Your task to perform on an android device: open device folders in google photos Image 0: 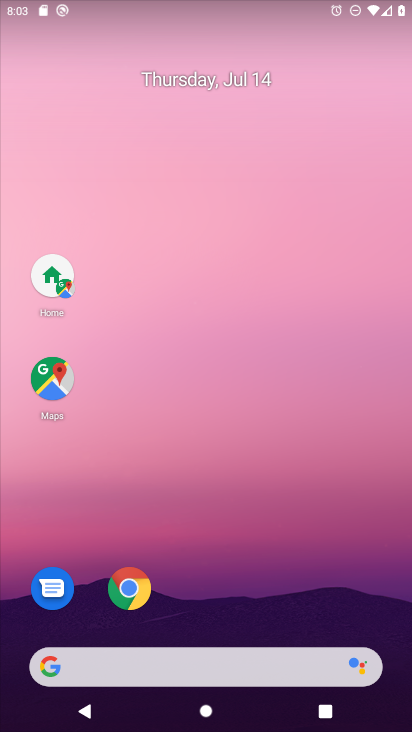
Step 0: drag from (20, 698) to (235, 86)
Your task to perform on an android device: open device folders in google photos Image 1: 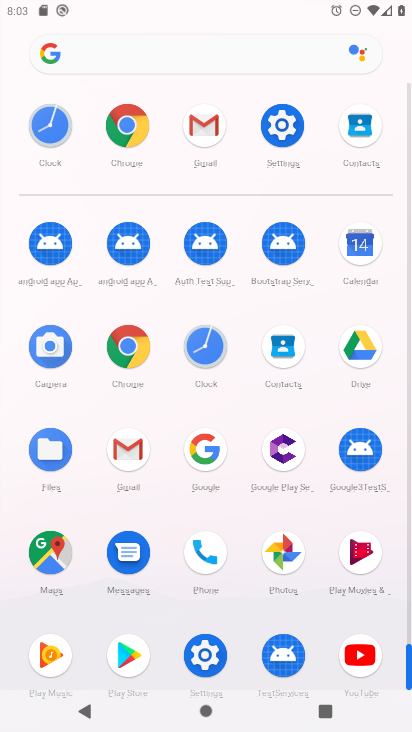
Step 1: click (280, 545)
Your task to perform on an android device: open device folders in google photos Image 2: 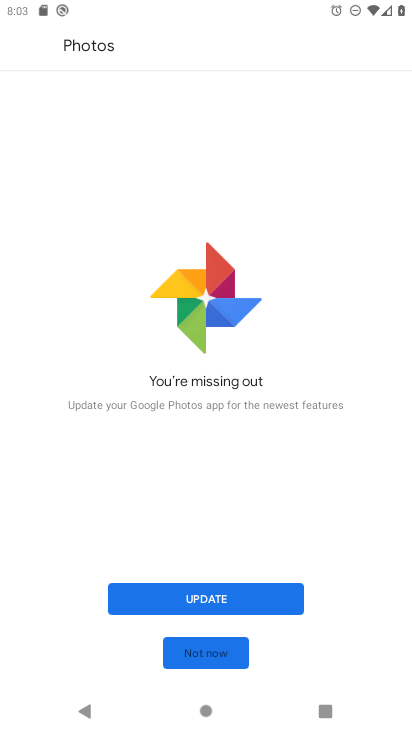
Step 2: click (210, 600)
Your task to perform on an android device: open device folders in google photos Image 3: 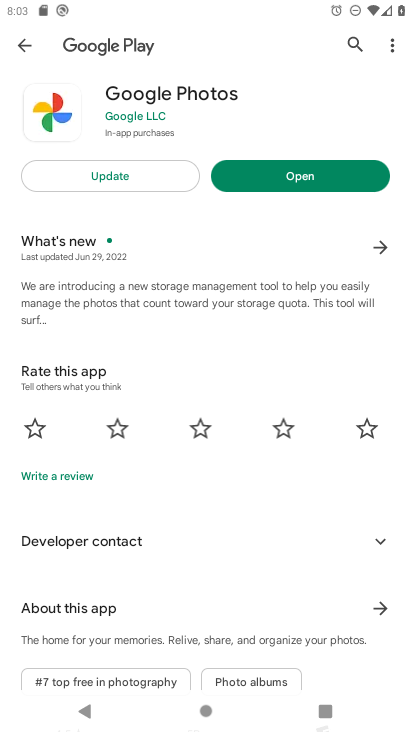
Step 3: click (323, 180)
Your task to perform on an android device: open device folders in google photos Image 4: 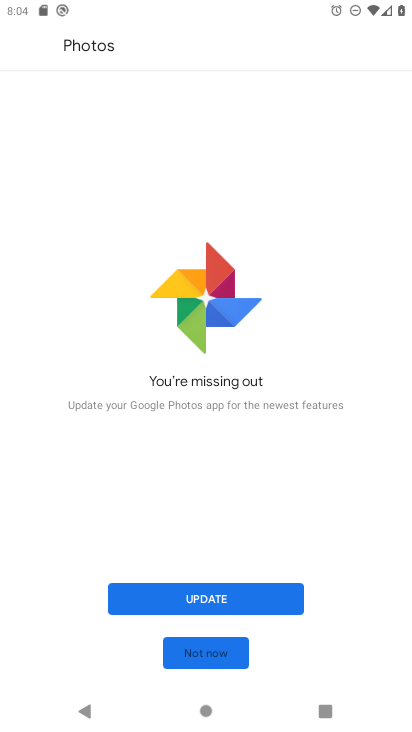
Step 4: click (204, 646)
Your task to perform on an android device: open device folders in google photos Image 5: 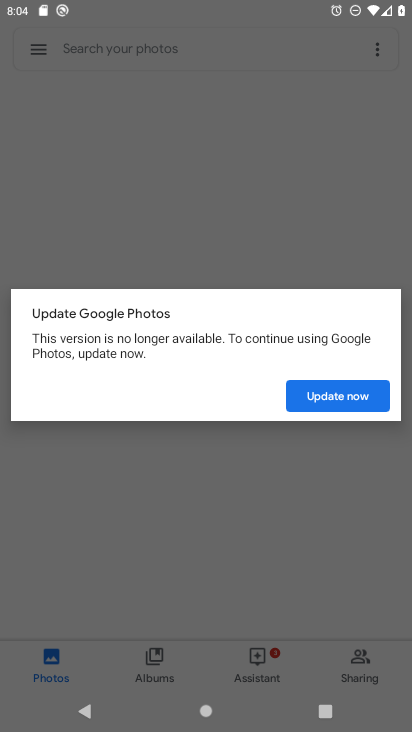
Step 5: click (315, 424)
Your task to perform on an android device: open device folders in google photos Image 6: 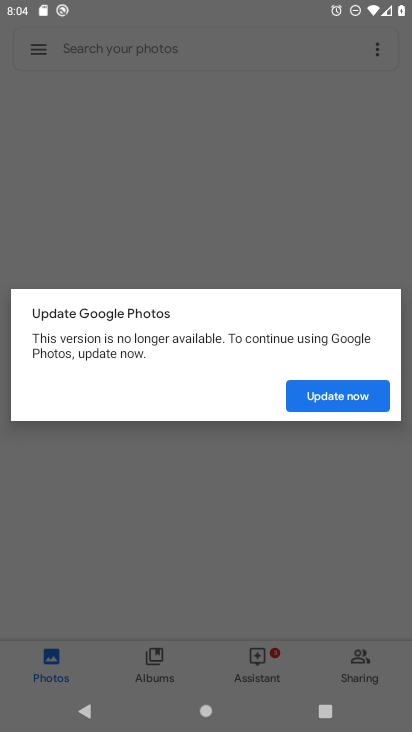
Step 6: click (318, 406)
Your task to perform on an android device: open device folders in google photos Image 7: 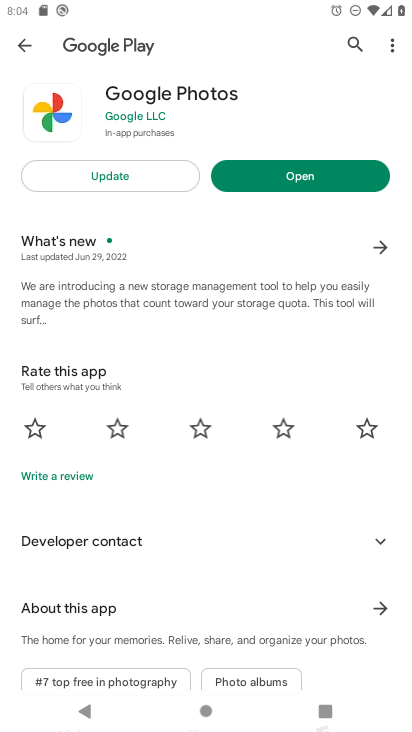
Step 7: click (318, 178)
Your task to perform on an android device: open device folders in google photos Image 8: 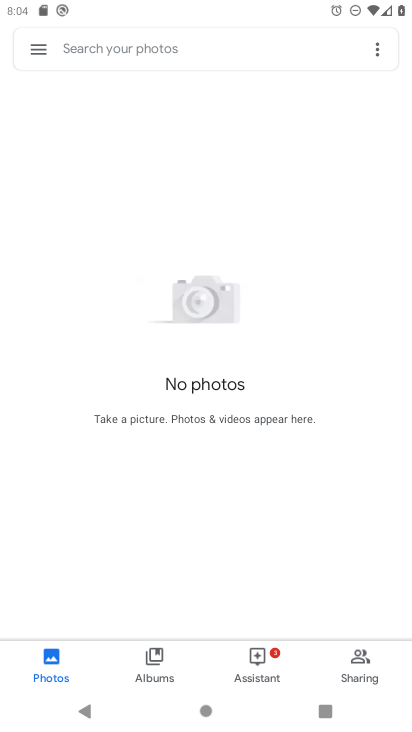
Step 8: click (36, 55)
Your task to perform on an android device: open device folders in google photos Image 9: 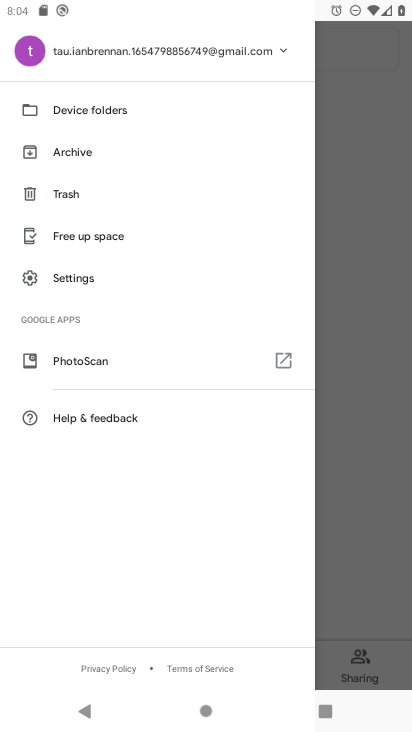
Step 9: click (118, 92)
Your task to perform on an android device: open device folders in google photos Image 10: 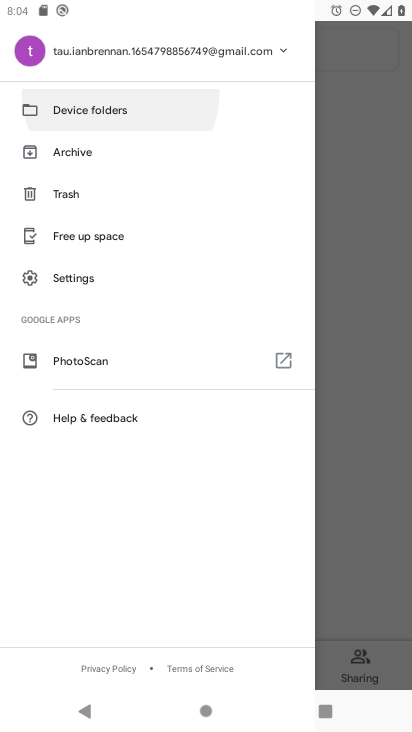
Step 10: click (118, 100)
Your task to perform on an android device: open device folders in google photos Image 11: 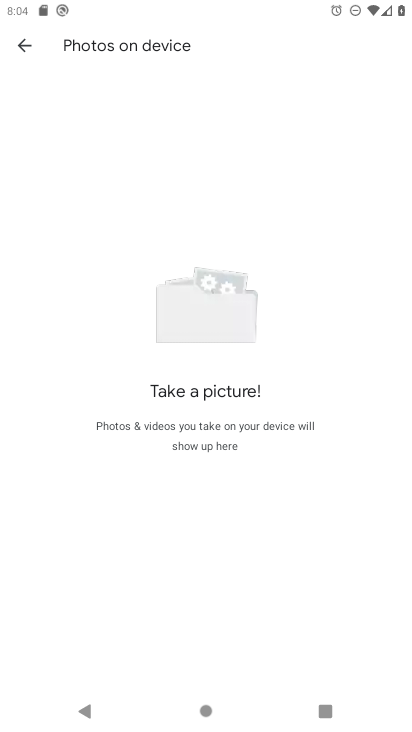
Step 11: task complete